Your task to perform on an android device: toggle priority inbox in the gmail app Image 0: 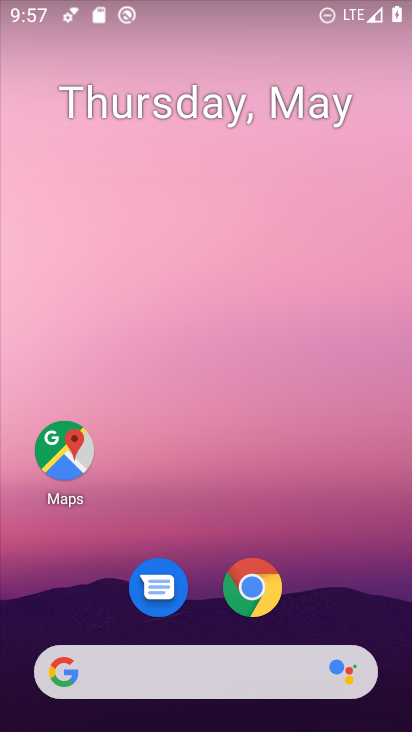
Step 0: drag from (369, 644) to (362, 5)
Your task to perform on an android device: toggle priority inbox in the gmail app Image 1: 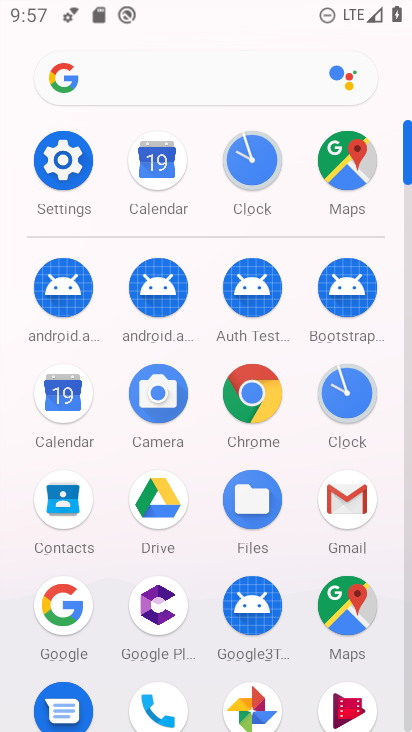
Step 1: click (348, 501)
Your task to perform on an android device: toggle priority inbox in the gmail app Image 2: 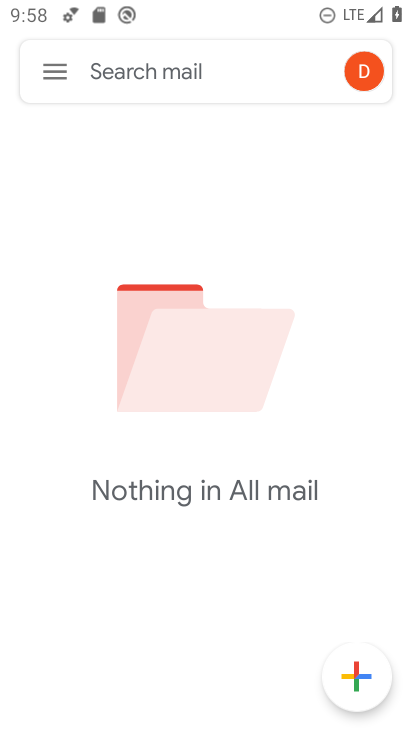
Step 2: click (57, 74)
Your task to perform on an android device: toggle priority inbox in the gmail app Image 3: 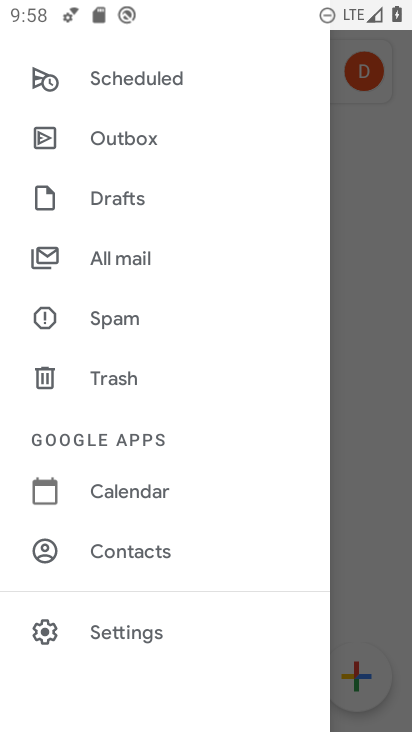
Step 3: click (129, 636)
Your task to perform on an android device: toggle priority inbox in the gmail app Image 4: 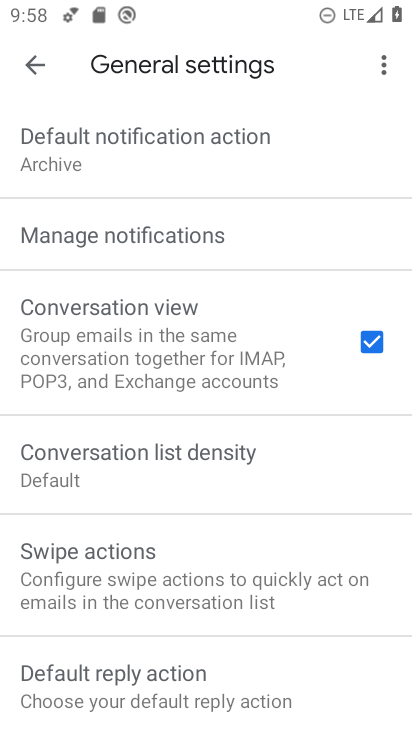
Step 4: click (30, 71)
Your task to perform on an android device: toggle priority inbox in the gmail app Image 5: 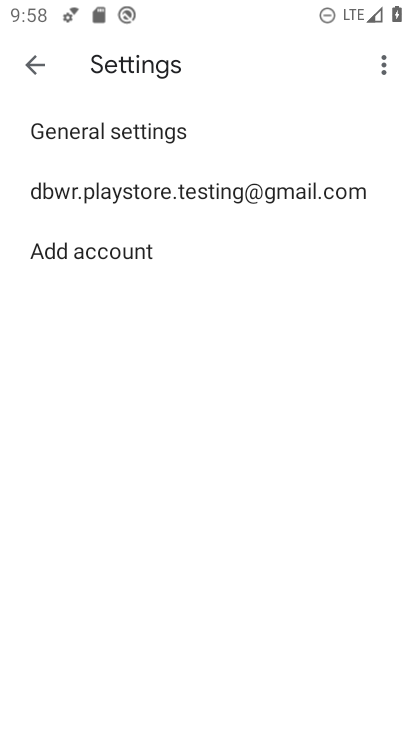
Step 5: click (70, 200)
Your task to perform on an android device: toggle priority inbox in the gmail app Image 6: 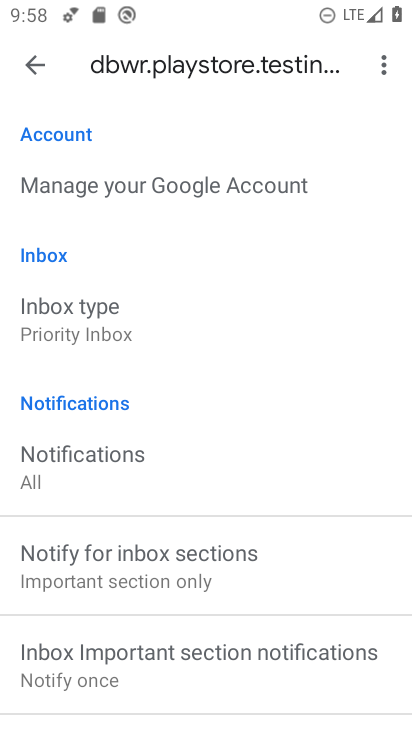
Step 6: click (76, 319)
Your task to perform on an android device: toggle priority inbox in the gmail app Image 7: 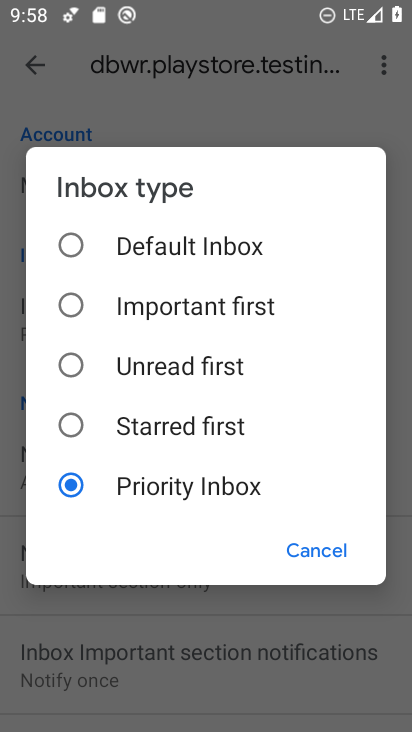
Step 7: click (62, 305)
Your task to perform on an android device: toggle priority inbox in the gmail app Image 8: 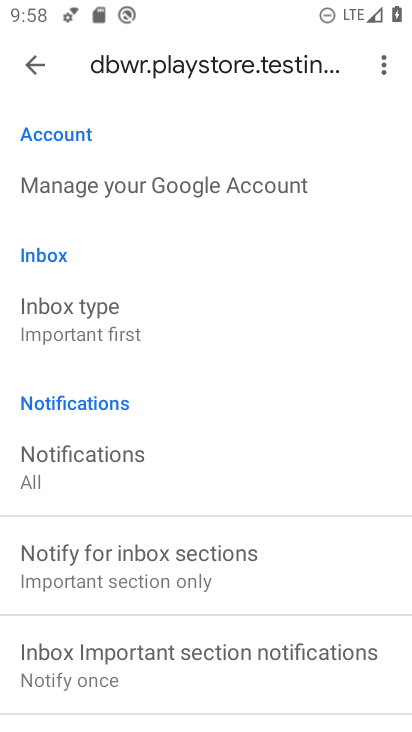
Step 8: task complete